Your task to perform on an android device: Go to Maps Image 0: 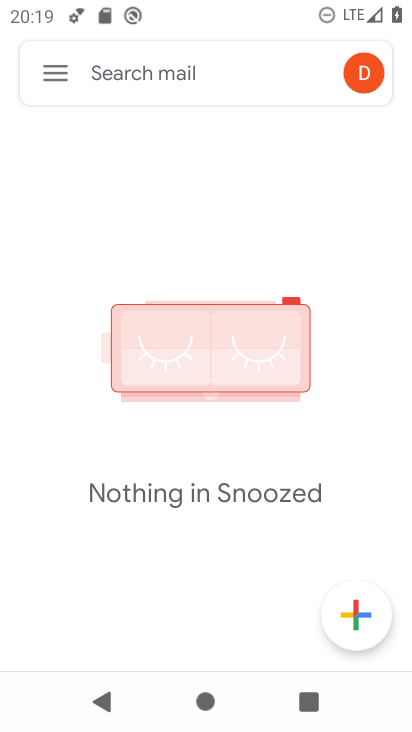
Step 0: press home button
Your task to perform on an android device: Go to Maps Image 1: 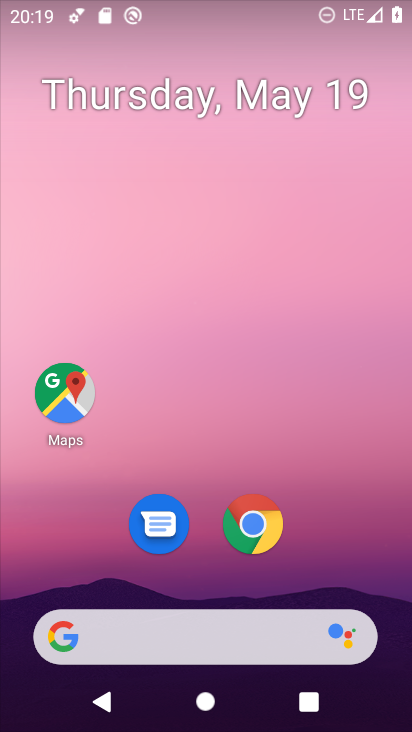
Step 1: click (46, 400)
Your task to perform on an android device: Go to Maps Image 2: 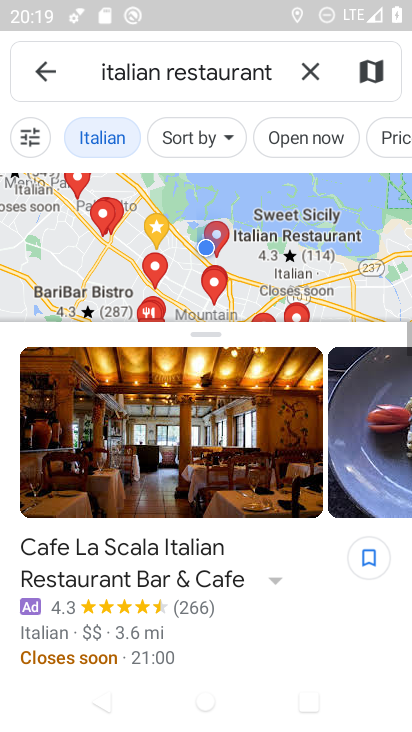
Step 2: click (307, 64)
Your task to perform on an android device: Go to Maps Image 3: 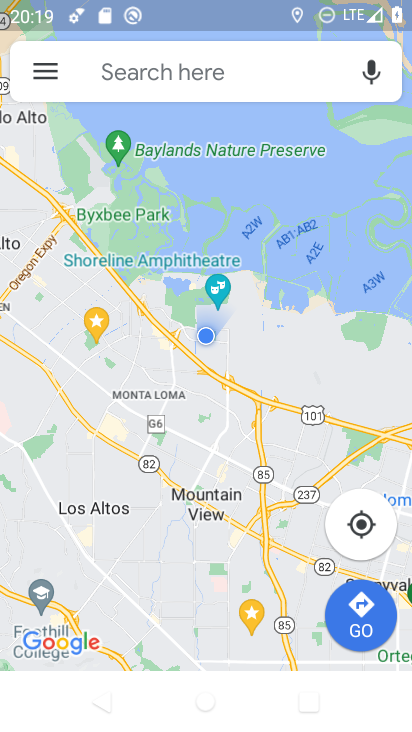
Step 3: task complete